Your task to perform on an android device: Open the web browser Image 0: 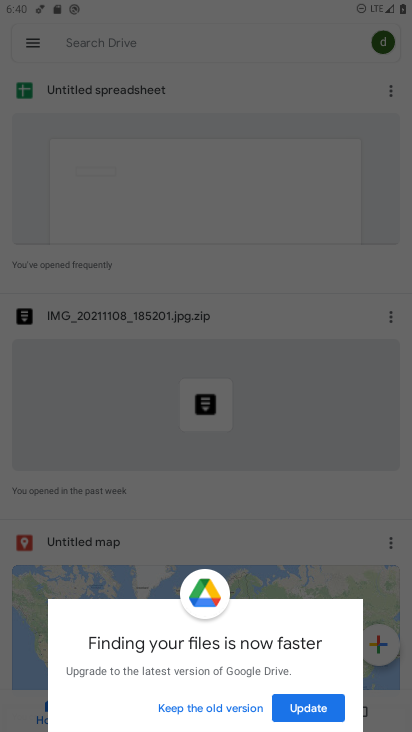
Step 0: press home button
Your task to perform on an android device: Open the web browser Image 1: 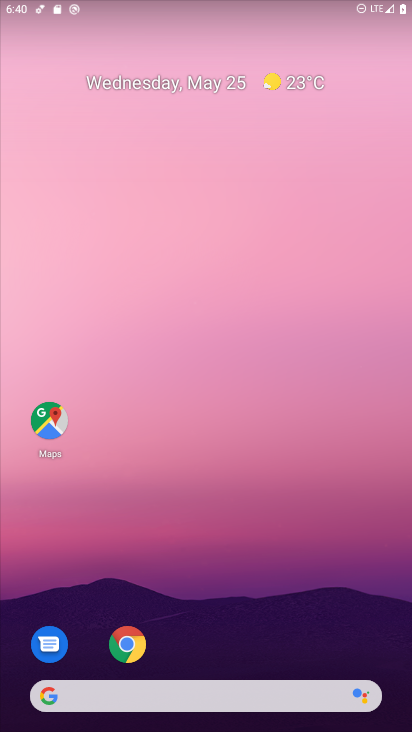
Step 1: drag from (361, 617) to (356, 5)
Your task to perform on an android device: Open the web browser Image 2: 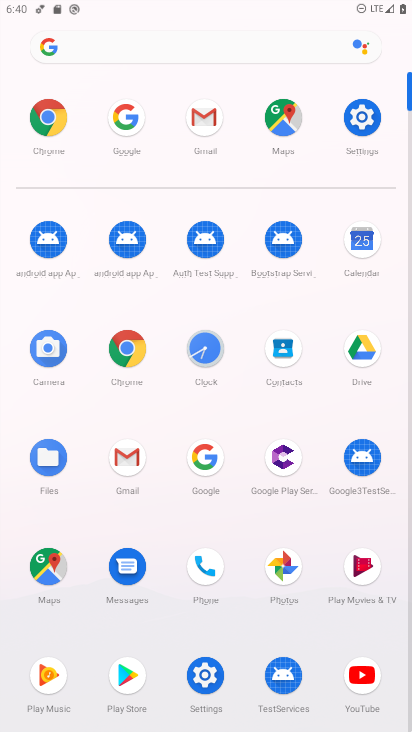
Step 2: click (127, 357)
Your task to perform on an android device: Open the web browser Image 3: 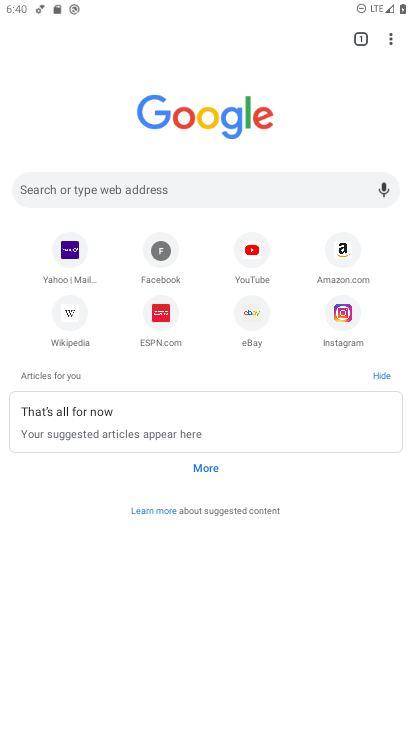
Step 3: task complete